Your task to perform on an android device: Go to Yahoo.com Image 0: 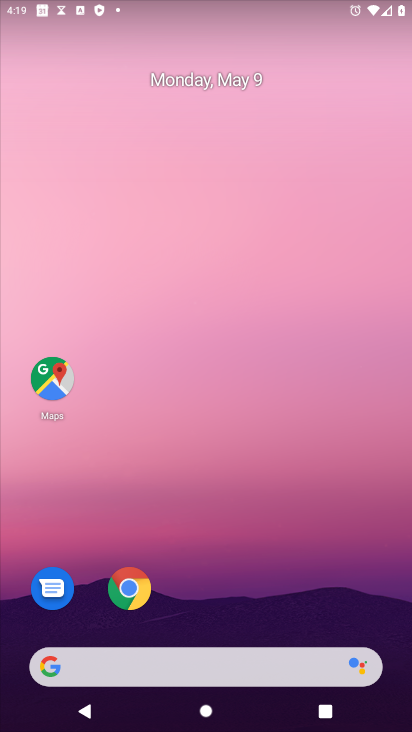
Step 0: click (134, 590)
Your task to perform on an android device: Go to Yahoo.com Image 1: 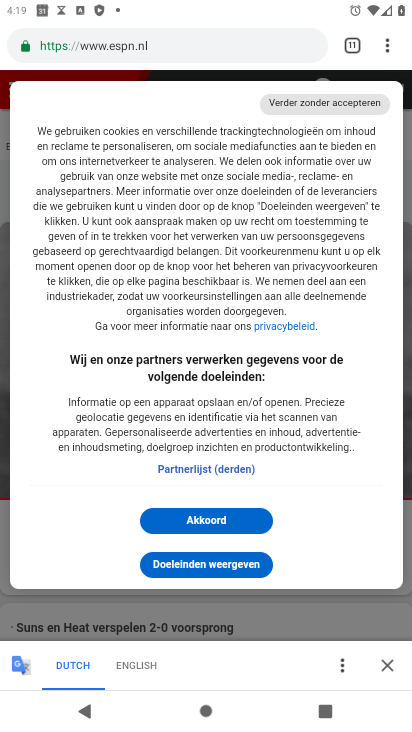
Step 1: click (355, 38)
Your task to perform on an android device: Go to Yahoo.com Image 2: 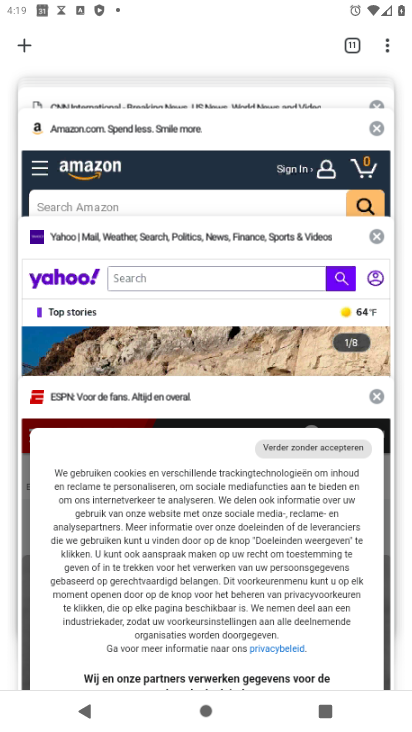
Step 2: click (60, 282)
Your task to perform on an android device: Go to Yahoo.com Image 3: 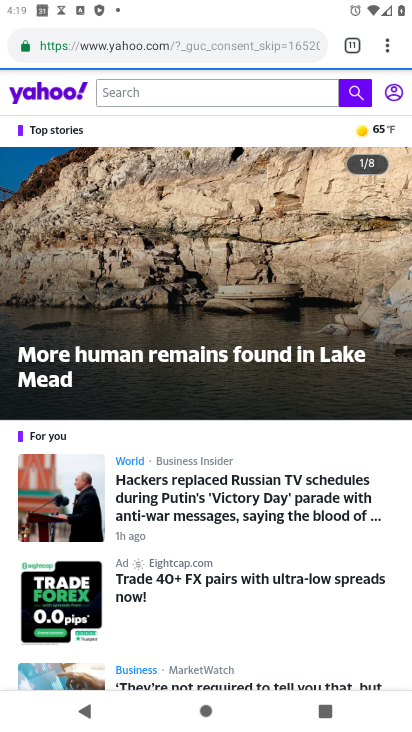
Step 3: task complete